Your task to perform on an android device: visit the assistant section in the google photos Image 0: 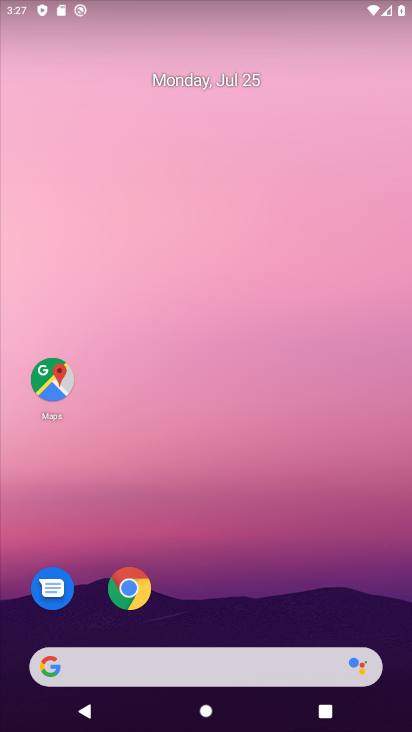
Step 0: drag from (284, 598) to (218, 166)
Your task to perform on an android device: visit the assistant section in the google photos Image 1: 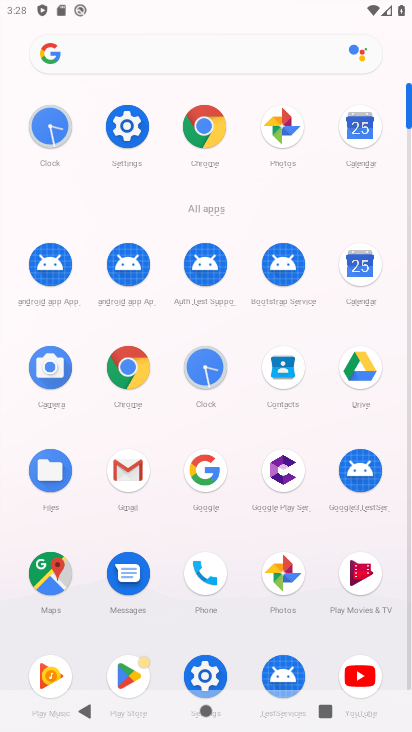
Step 1: click (285, 576)
Your task to perform on an android device: visit the assistant section in the google photos Image 2: 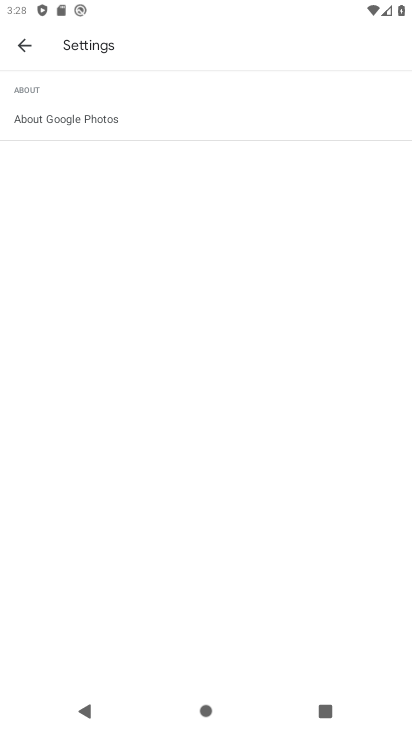
Step 2: click (20, 43)
Your task to perform on an android device: visit the assistant section in the google photos Image 3: 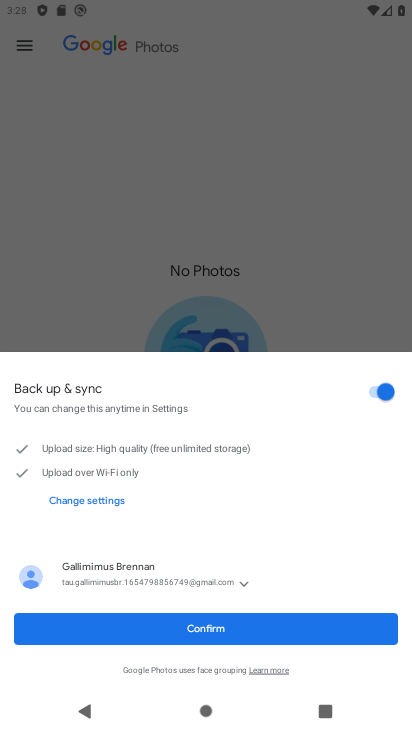
Step 3: click (244, 625)
Your task to perform on an android device: visit the assistant section in the google photos Image 4: 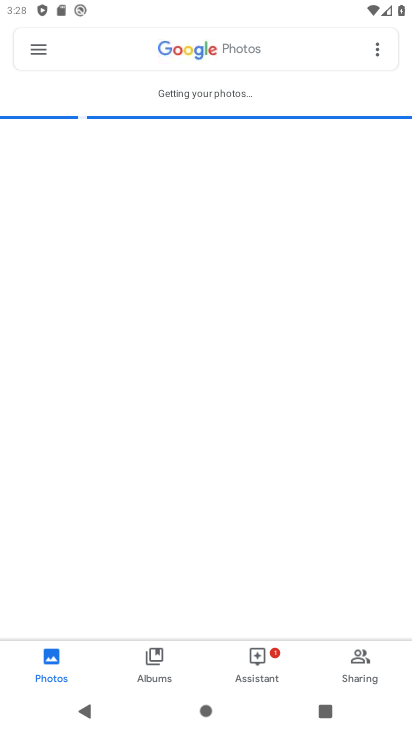
Step 4: click (265, 655)
Your task to perform on an android device: visit the assistant section in the google photos Image 5: 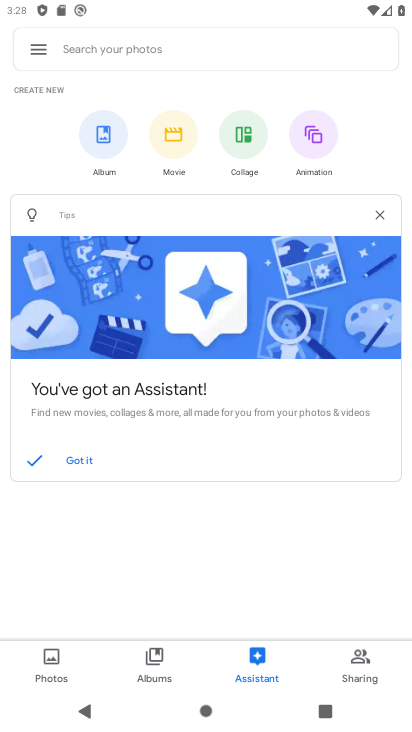
Step 5: task complete